Your task to perform on an android device: Open Android settings Image 0: 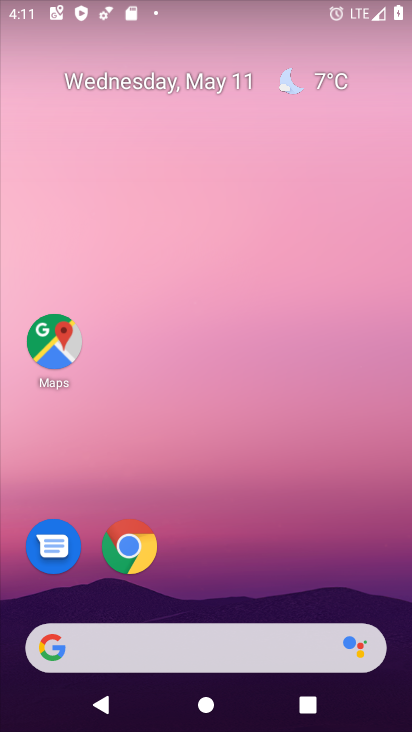
Step 0: drag from (286, 619) to (350, 2)
Your task to perform on an android device: Open Android settings Image 1: 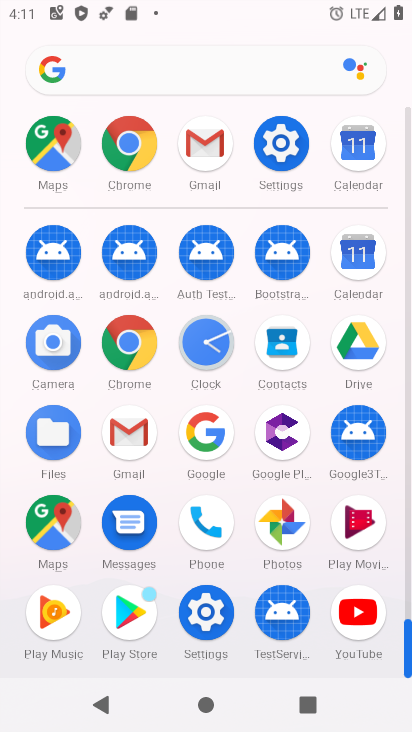
Step 1: click (280, 156)
Your task to perform on an android device: Open Android settings Image 2: 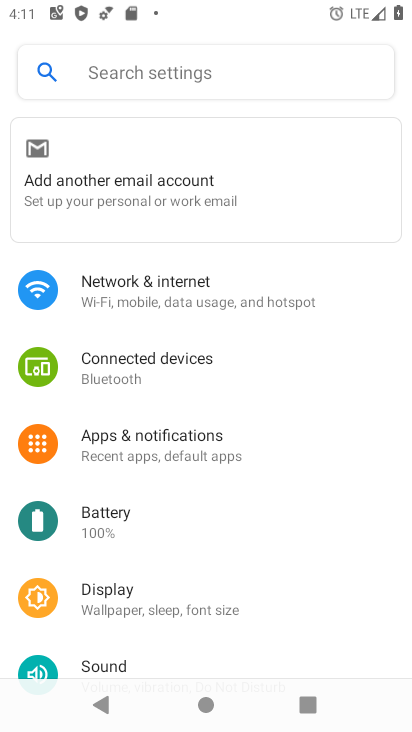
Step 2: drag from (165, 596) to (223, 96)
Your task to perform on an android device: Open Android settings Image 3: 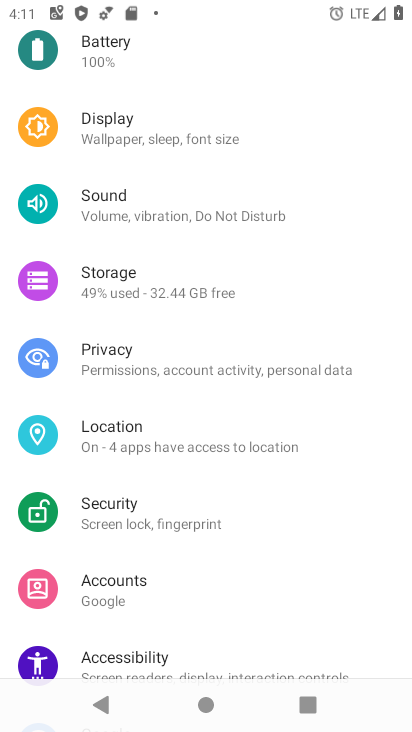
Step 3: drag from (189, 654) to (243, 117)
Your task to perform on an android device: Open Android settings Image 4: 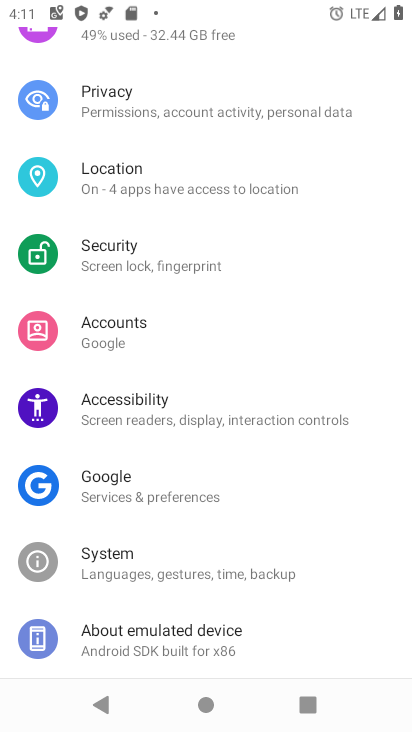
Step 4: click (254, 656)
Your task to perform on an android device: Open Android settings Image 5: 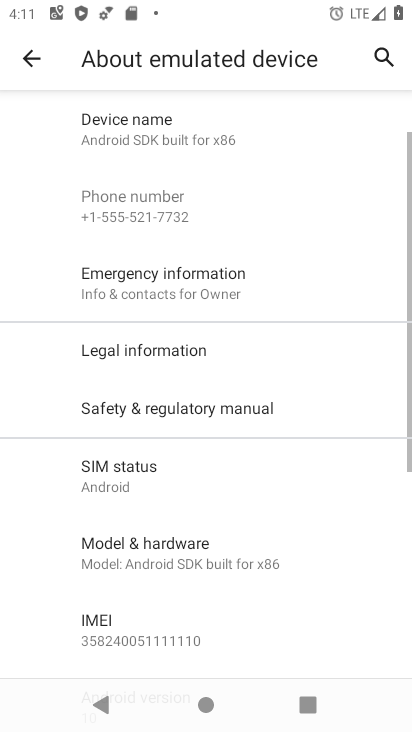
Step 5: drag from (254, 656) to (312, 285)
Your task to perform on an android device: Open Android settings Image 6: 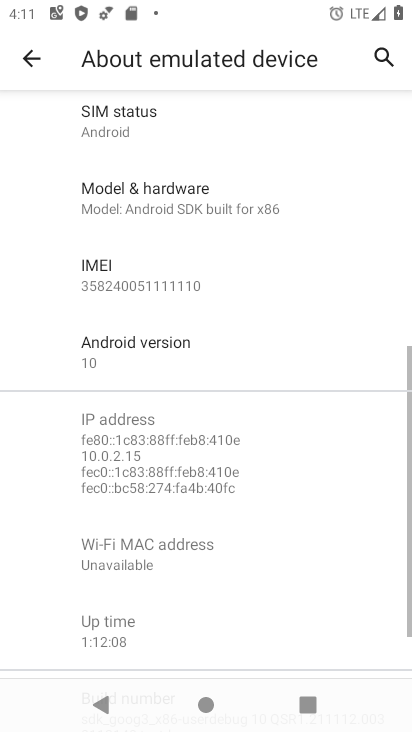
Step 6: click (199, 357)
Your task to perform on an android device: Open Android settings Image 7: 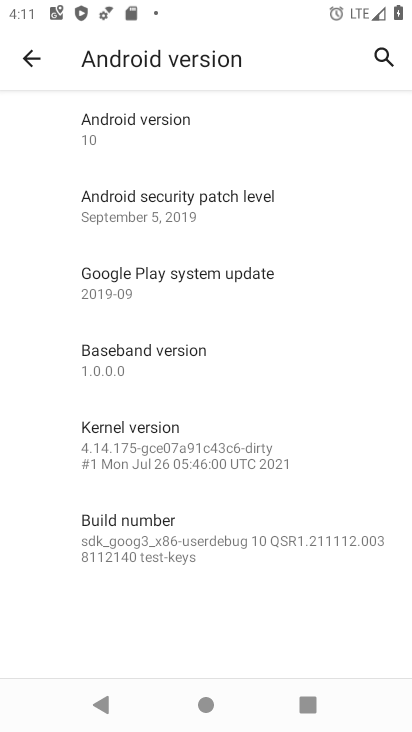
Step 7: task complete